Your task to perform on an android device: change timer sound Image 0: 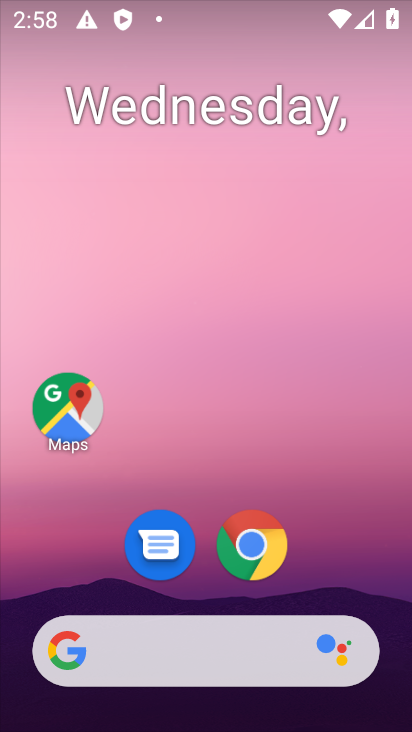
Step 0: drag from (233, 631) to (168, 2)
Your task to perform on an android device: change timer sound Image 1: 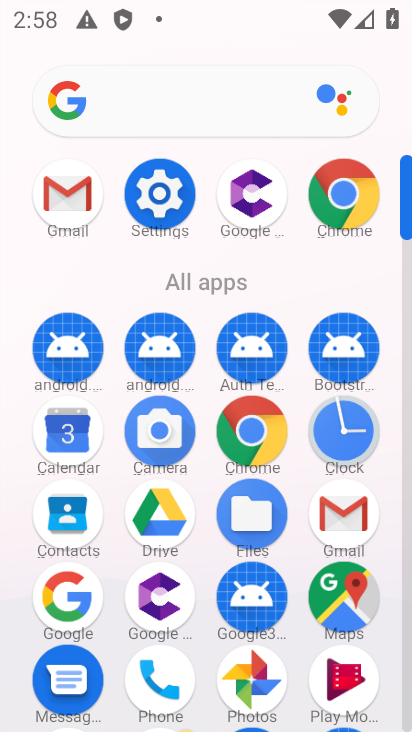
Step 1: click (360, 439)
Your task to perform on an android device: change timer sound Image 2: 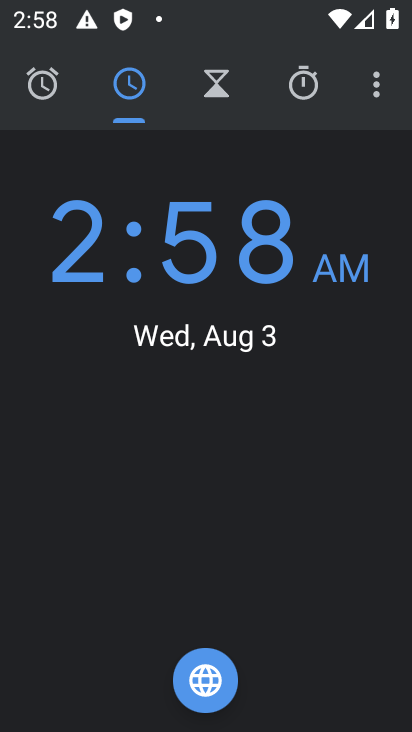
Step 2: click (379, 82)
Your task to perform on an android device: change timer sound Image 3: 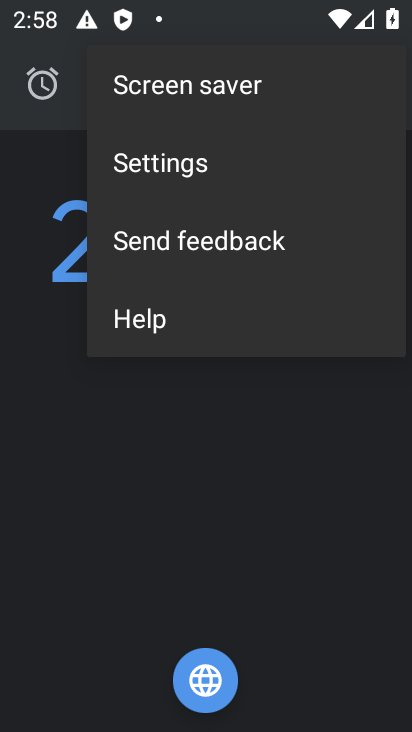
Step 3: click (179, 185)
Your task to perform on an android device: change timer sound Image 4: 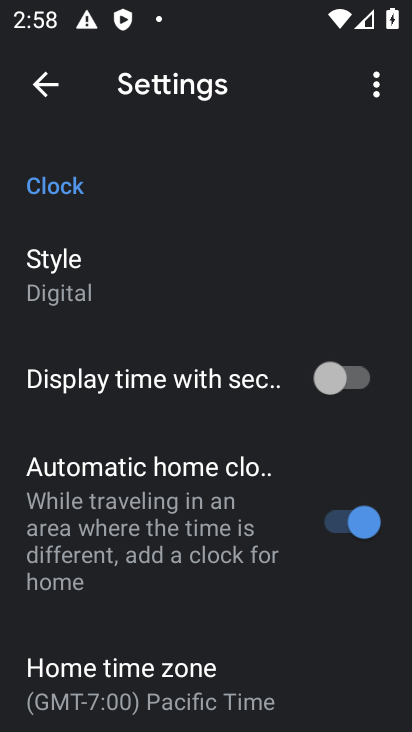
Step 4: drag from (185, 582) to (102, 7)
Your task to perform on an android device: change timer sound Image 5: 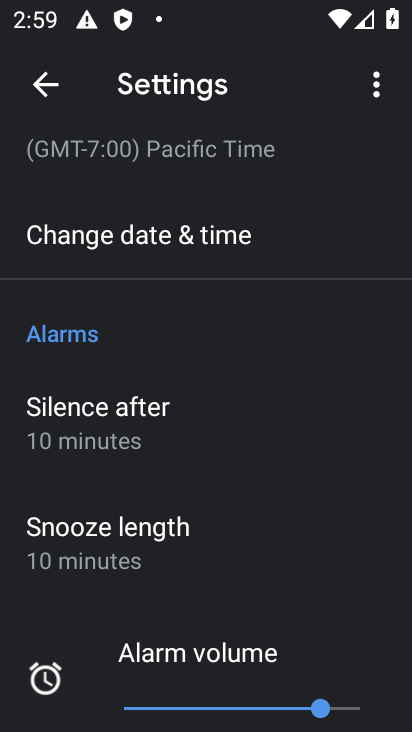
Step 5: drag from (225, 515) to (175, 35)
Your task to perform on an android device: change timer sound Image 6: 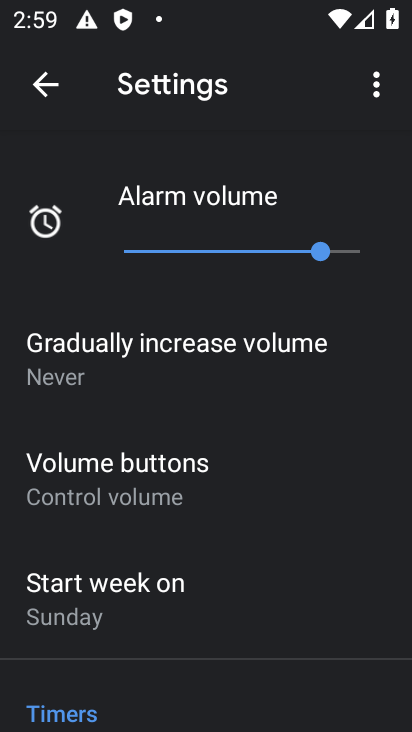
Step 6: drag from (172, 634) to (176, 173)
Your task to perform on an android device: change timer sound Image 7: 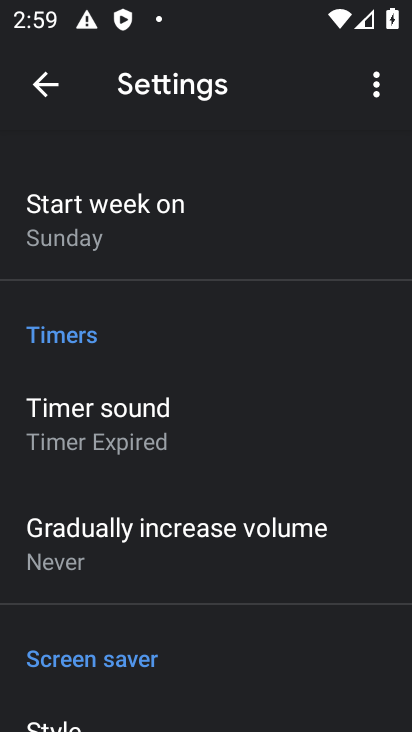
Step 7: click (155, 433)
Your task to perform on an android device: change timer sound Image 8: 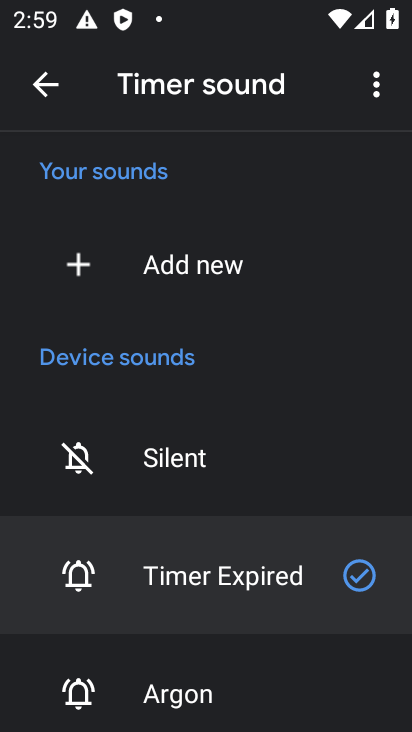
Step 8: click (169, 678)
Your task to perform on an android device: change timer sound Image 9: 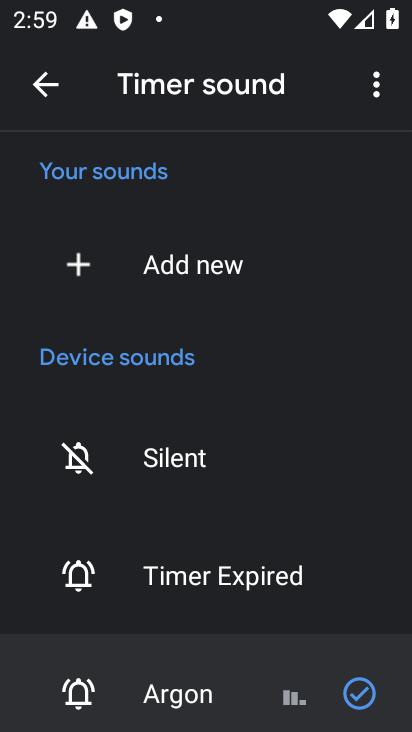
Step 9: task complete